Your task to perform on an android device: Open display settings Image 0: 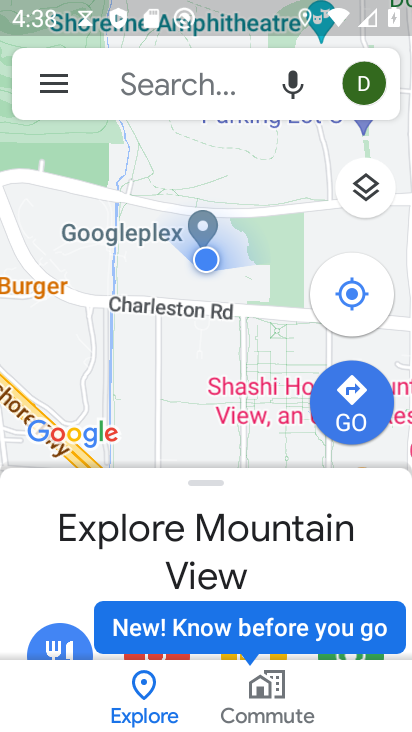
Step 0: click (48, 91)
Your task to perform on an android device: Open display settings Image 1: 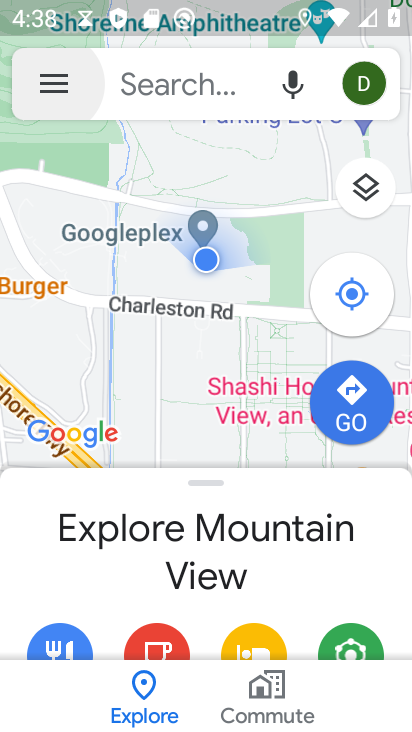
Step 1: click (48, 91)
Your task to perform on an android device: Open display settings Image 2: 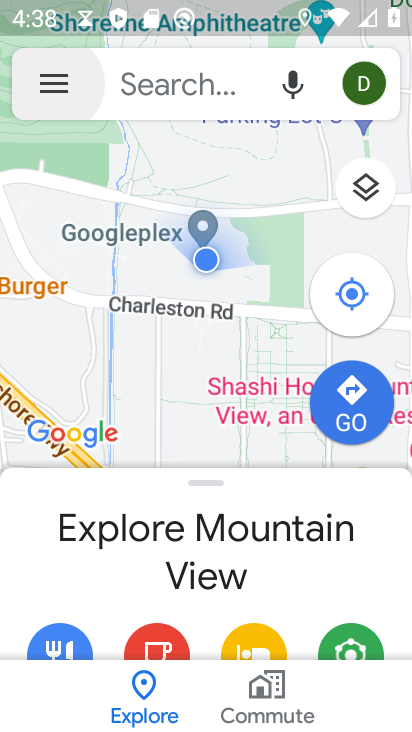
Step 2: click (48, 91)
Your task to perform on an android device: Open display settings Image 3: 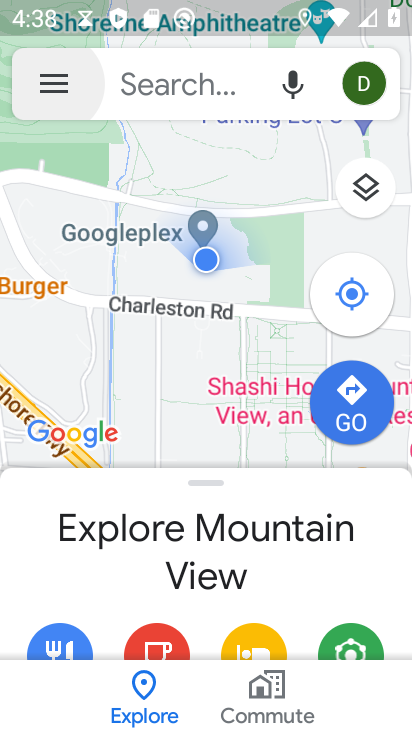
Step 3: click (48, 91)
Your task to perform on an android device: Open display settings Image 4: 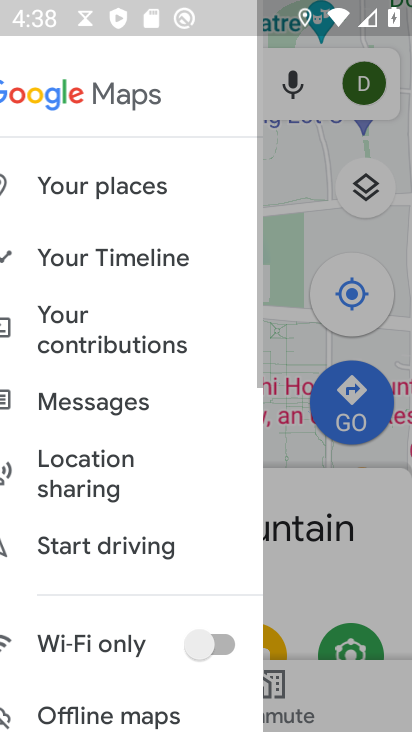
Step 4: click (48, 91)
Your task to perform on an android device: Open display settings Image 5: 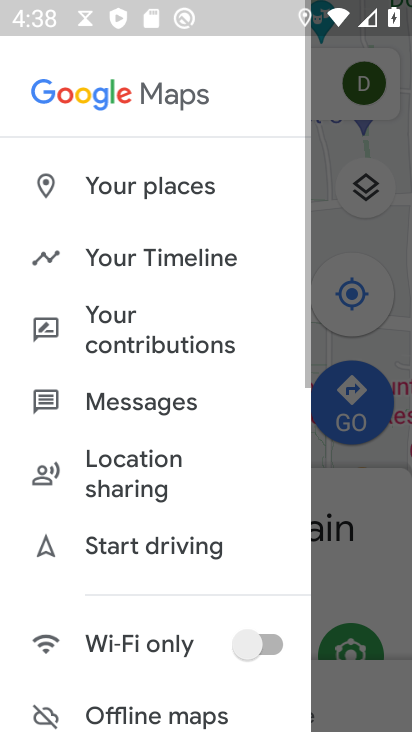
Step 5: click (48, 91)
Your task to perform on an android device: Open display settings Image 6: 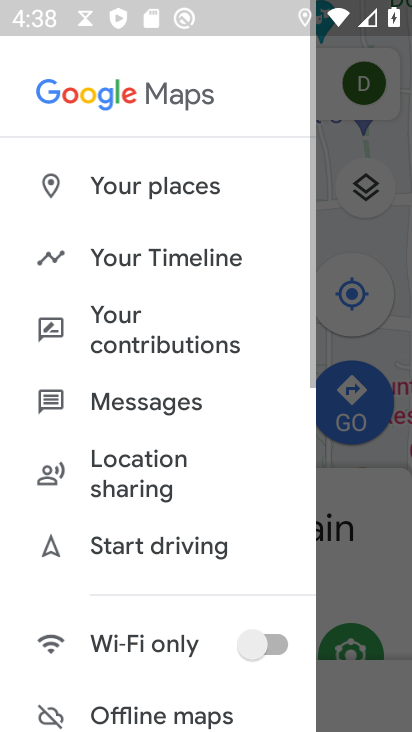
Step 6: click (48, 91)
Your task to perform on an android device: Open display settings Image 7: 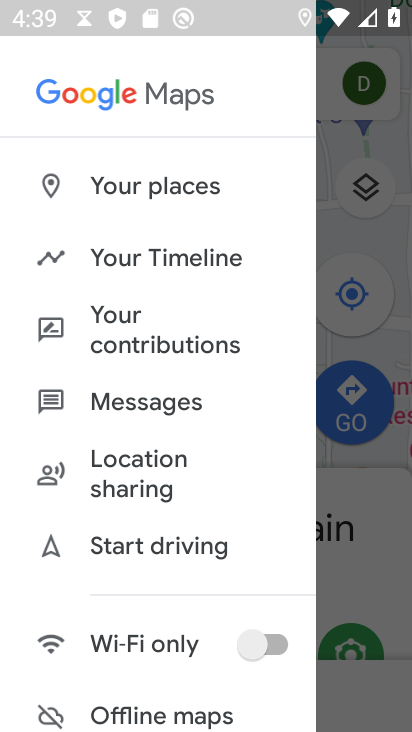
Step 7: click (364, 542)
Your task to perform on an android device: Open display settings Image 8: 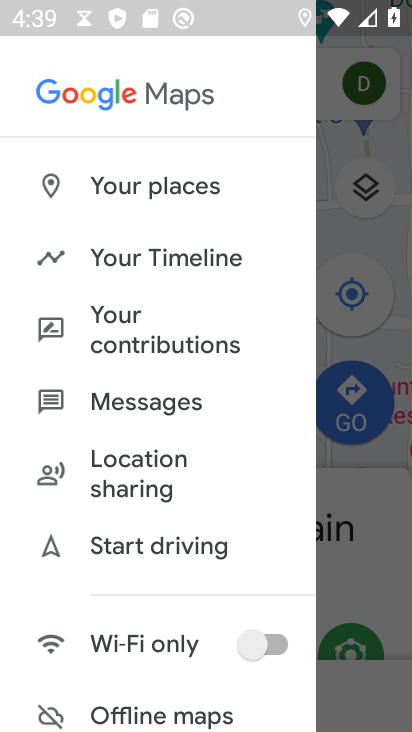
Step 8: click (386, 517)
Your task to perform on an android device: Open display settings Image 9: 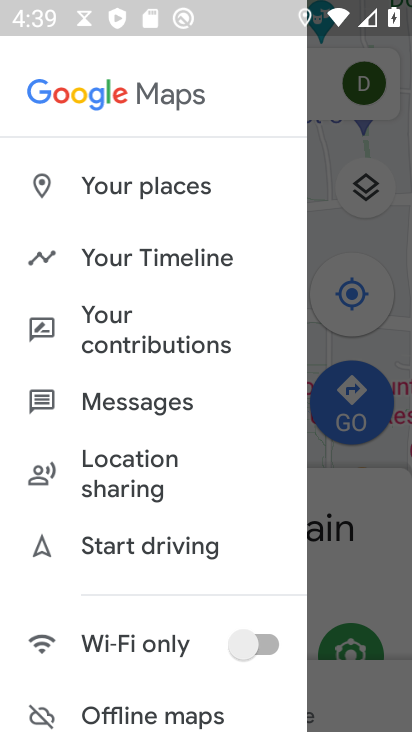
Step 9: click (382, 519)
Your task to perform on an android device: Open display settings Image 10: 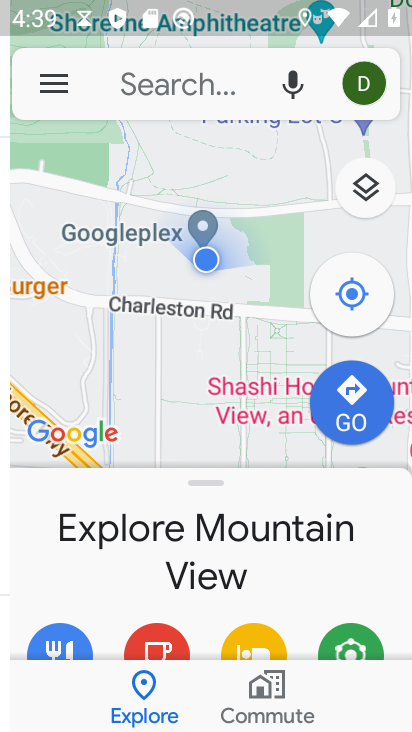
Step 10: click (360, 557)
Your task to perform on an android device: Open display settings Image 11: 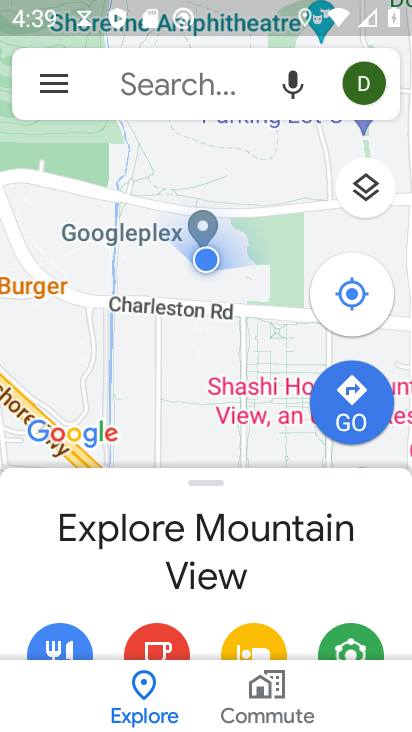
Step 11: click (360, 556)
Your task to perform on an android device: Open display settings Image 12: 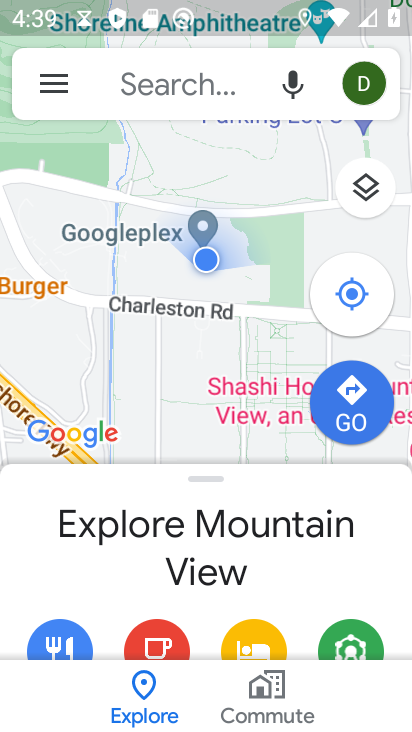
Step 12: press back button
Your task to perform on an android device: Open display settings Image 13: 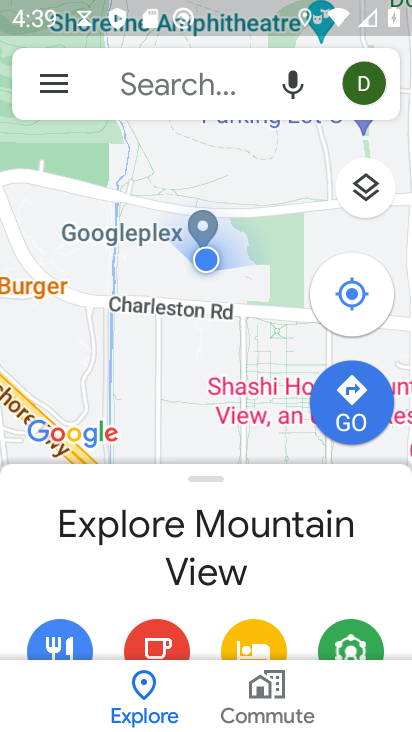
Step 13: press back button
Your task to perform on an android device: Open display settings Image 14: 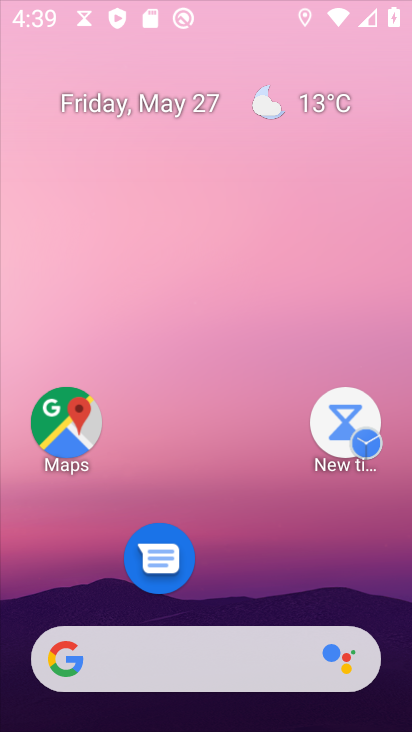
Step 14: press back button
Your task to perform on an android device: Open display settings Image 15: 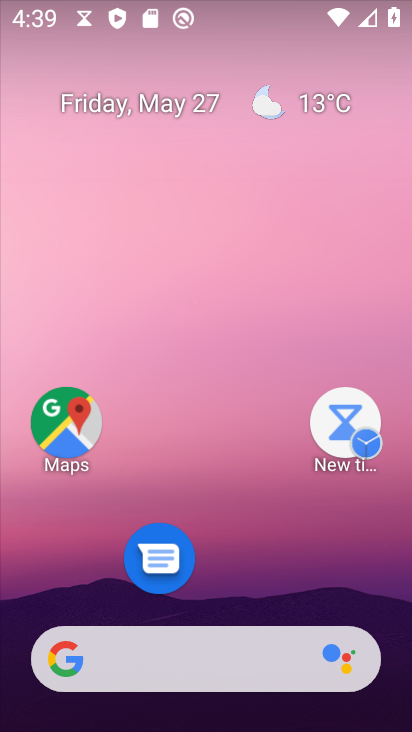
Step 15: drag from (264, 565) to (220, 128)
Your task to perform on an android device: Open display settings Image 16: 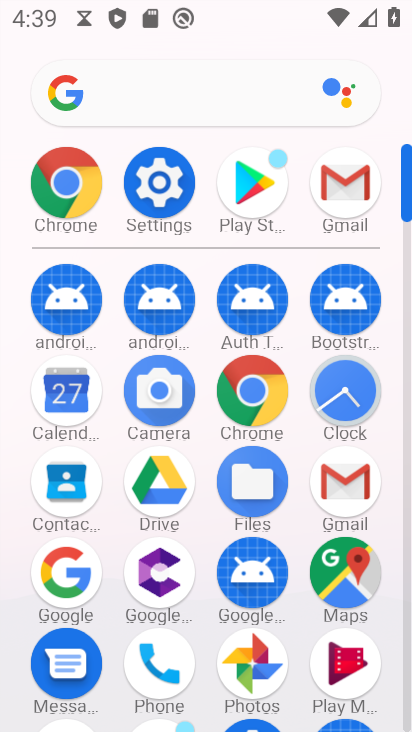
Step 16: click (143, 177)
Your task to perform on an android device: Open display settings Image 17: 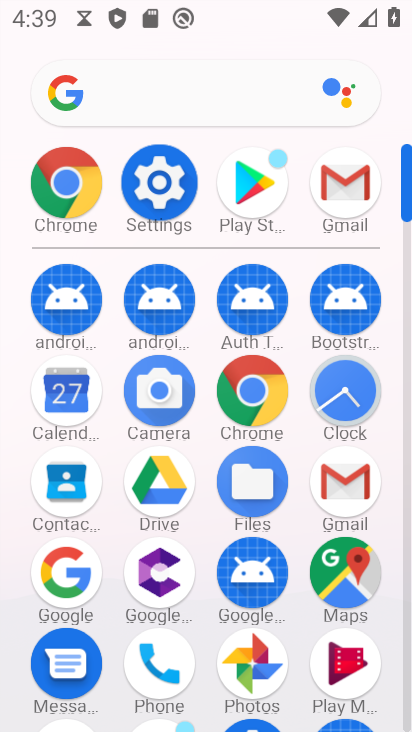
Step 17: click (147, 183)
Your task to perform on an android device: Open display settings Image 18: 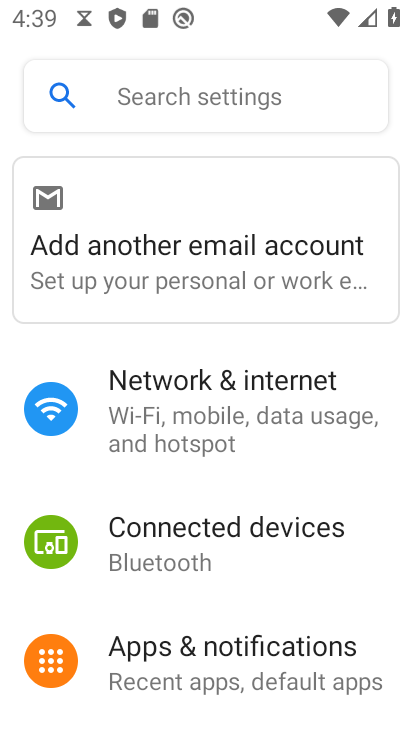
Step 18: drag from (187, 520) to (171, 336)
Your task to perform on an android device: Open display settings Image 19: 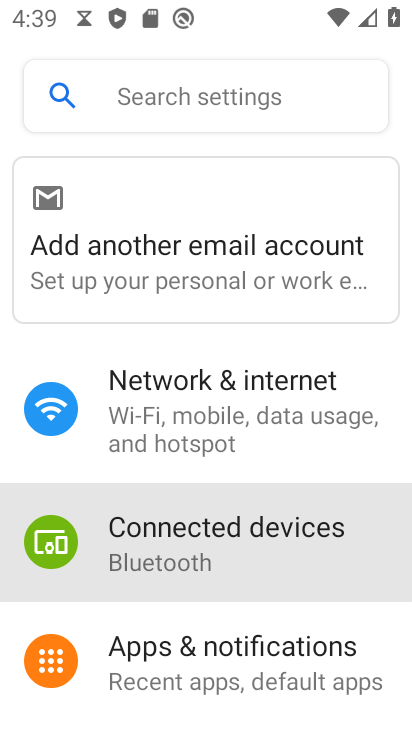
Step 19: drag from (192, 510) to (182, 265)
Your task to perform on an android device: Open display settings Image 20: 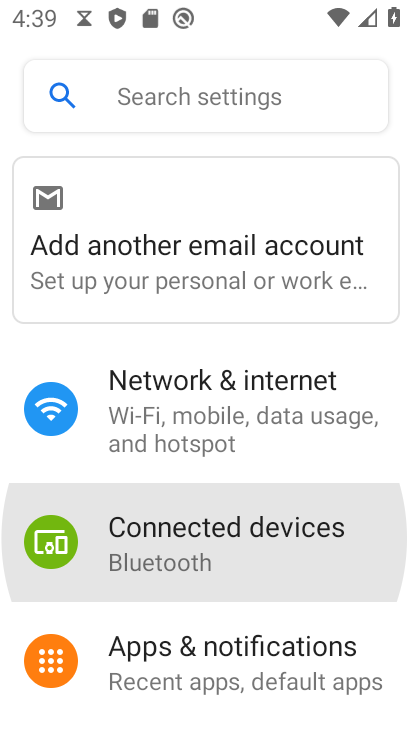
Step 20: drag from (256, 545) to (244, 250)
Your task to perform on an android device: Open display settings Image 21: 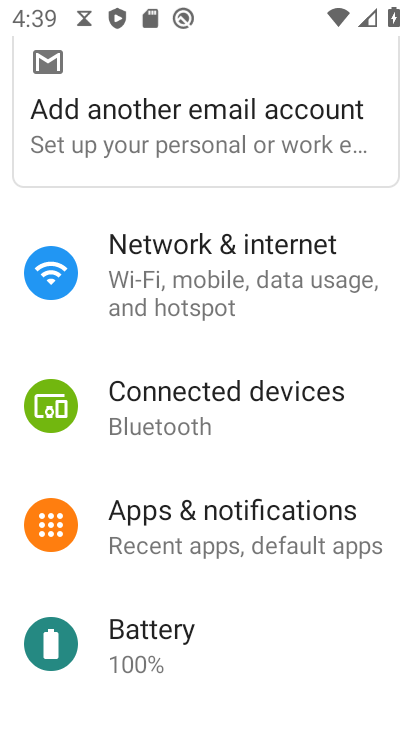
Step 21: click (272, 415)
Your task to perform on an android device: Open display settings Image 22: 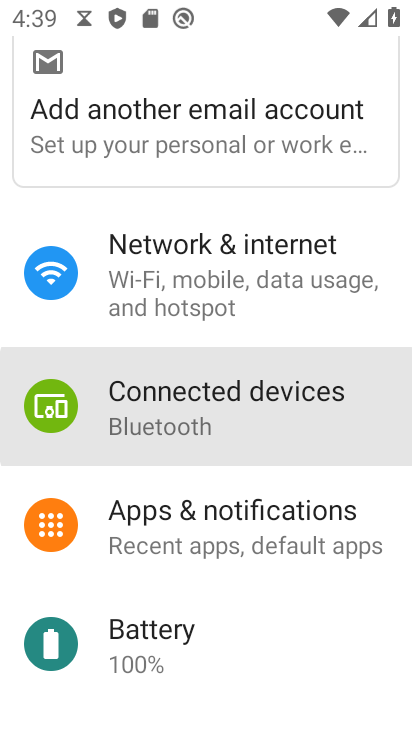
Step 22: drag from (260, 543) to (220, 220)
Your task to perform on an android device: Open display settings Image 23: 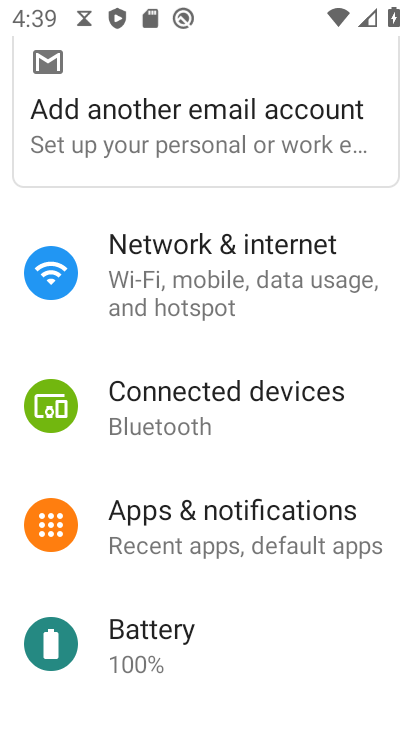
Step 23: drag from (173, 454) to (169, 291)
Your task to perform on an android device: Open display settings Image 24: 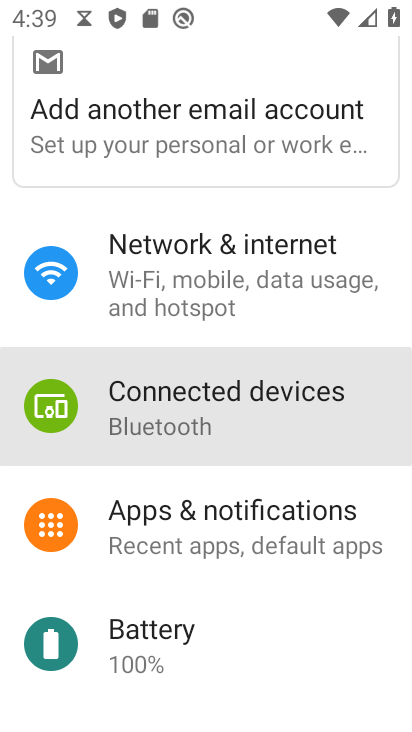
Step 24: drag from (235, 622) to (201, 260)
Your task to perform on an android device: Open display settings Image 25: 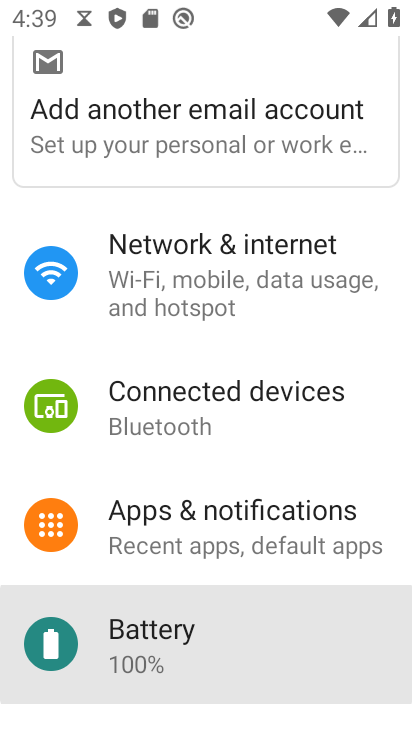
Step 25: drag from (247, 618) to (229, 255)
Your task to perform on an android device: Open display settings Image 26: 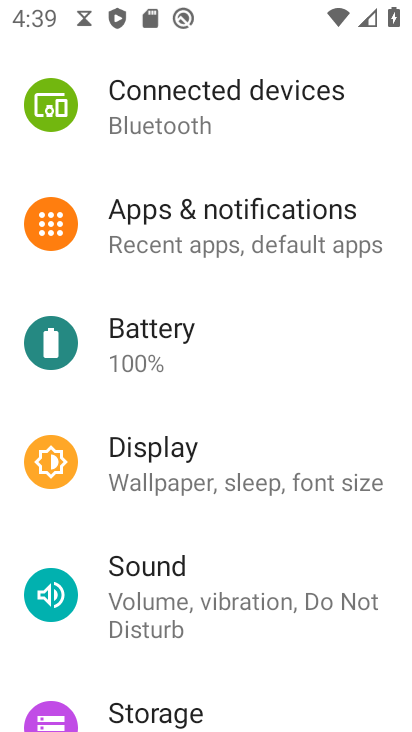
Step 26: drag from (170, 571) to (161, 356)
Your task to perform on an android device: Open display settings Image 27: 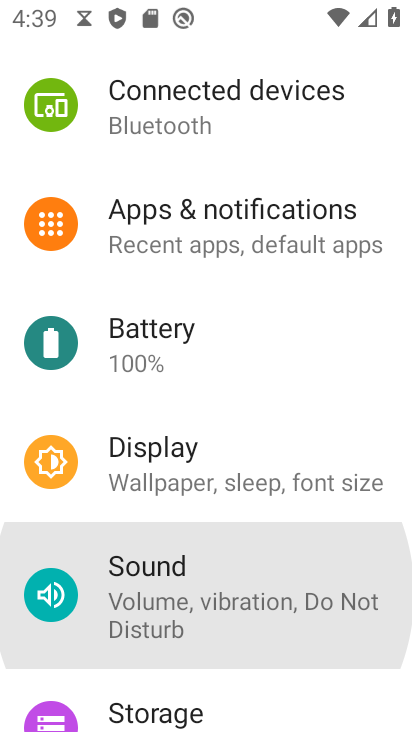
Step 27: drag from (170, 503) to (143, 301)
Your task to perform on an android device: Open display settings Image 28: 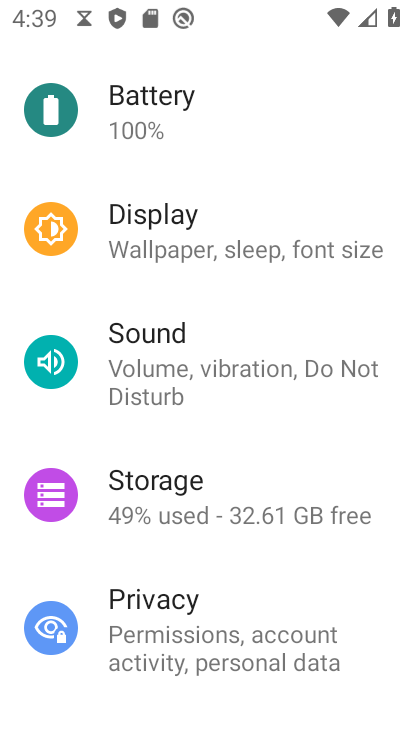
Step 28: click (157, 241)
Your task to perform on an android device: Open display settings Image 29: 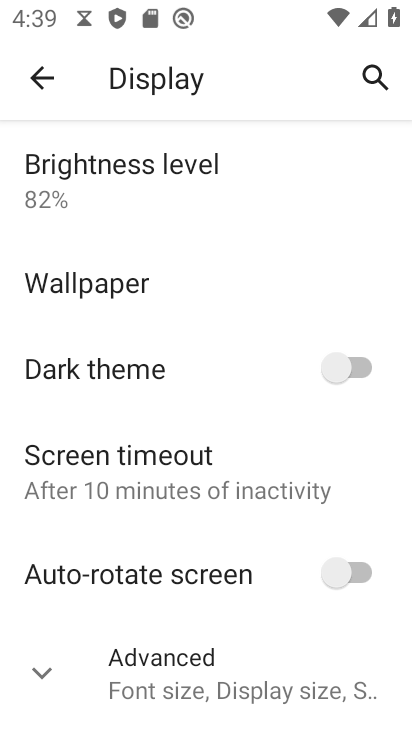
Step 29: task complete